Your task to perform on an android device: open wifi settings Image 0: 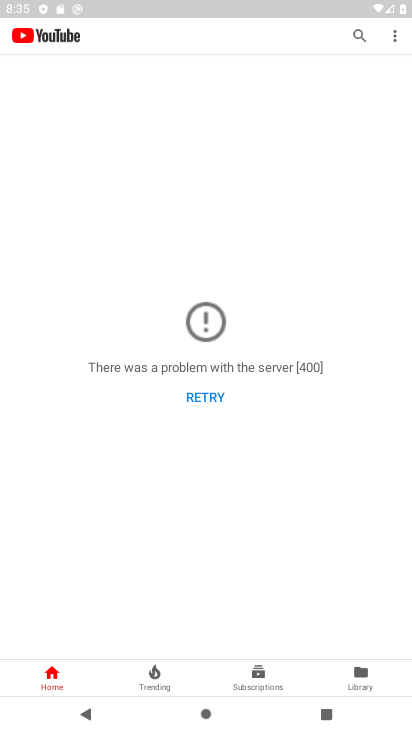
Step 0: press back button
Your task to perform on an android device: open wifi settings Image 1: 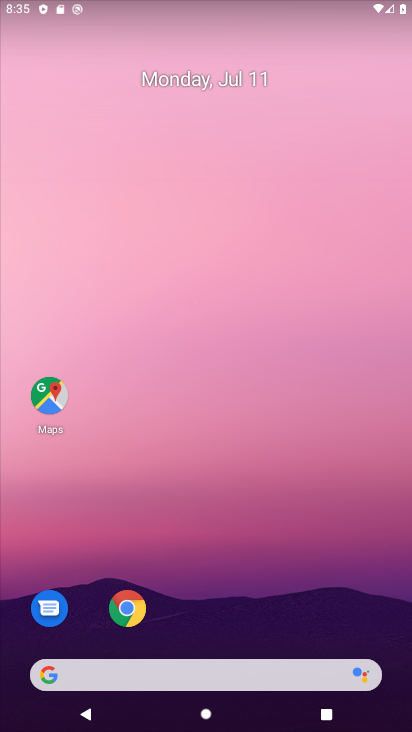
Step 1: click (185, 278)
Your task to perform on an android device: open wifi settings Image 2: 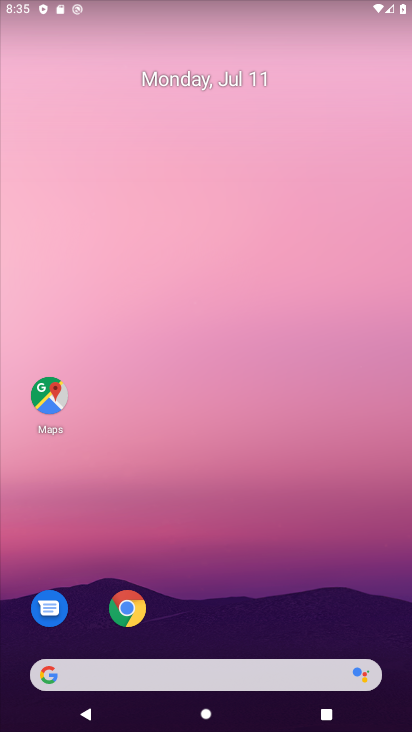
Step 2: drag from (178, 300) to (178, 54)
Your task to perform on an android device: open wifi settings Image 3: 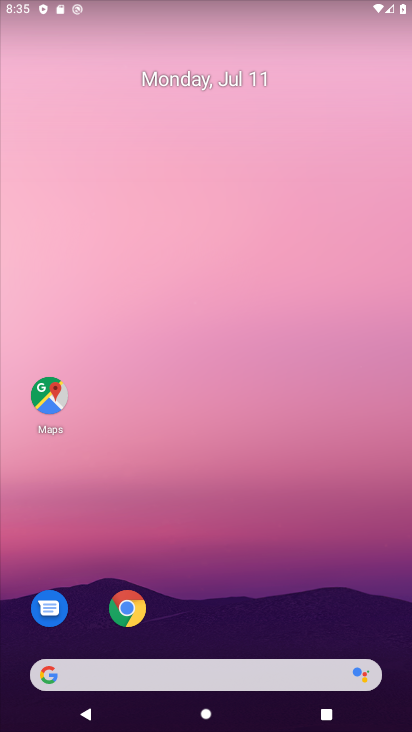
Step 3: drag from (185, 616) to (193, 32)
Your task to perform on an android device: open wifi settings Image 4: 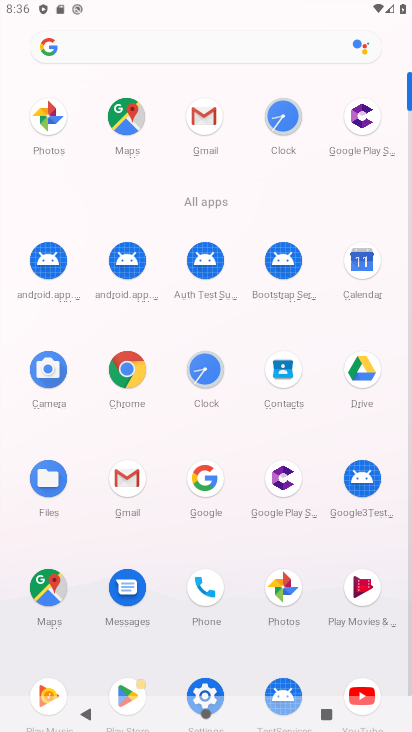
Step 4: click (198, 685)
Your task to perform on an android device: open wifi settings Image 5: 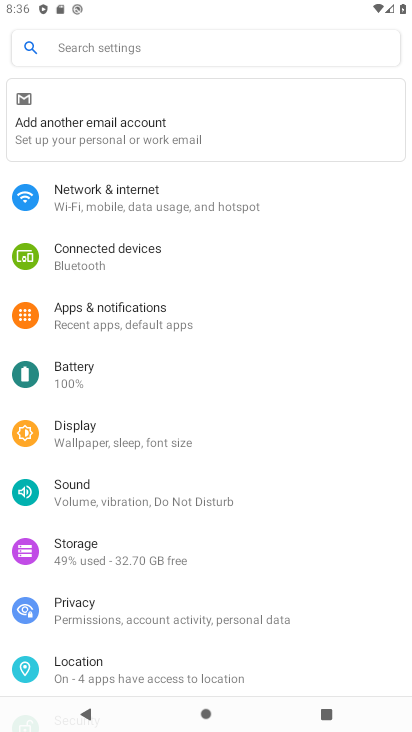
Step 5: click (92, 188)
Your task to perform on an android device: open wifi settings Image 6: 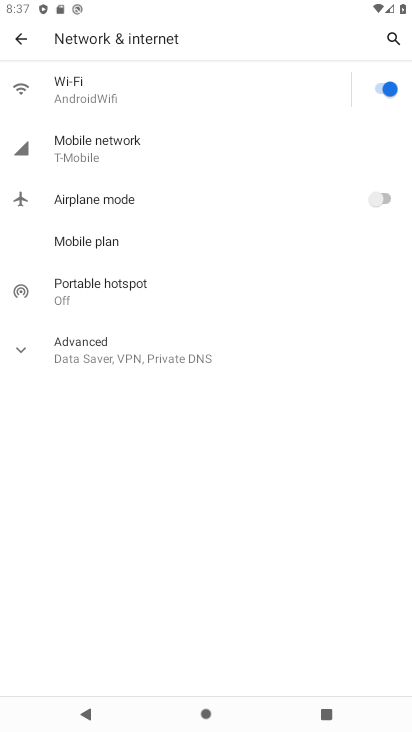
Step 6: click (134, 96)
Your task to perform on an android device: open wifi settings Image 7: 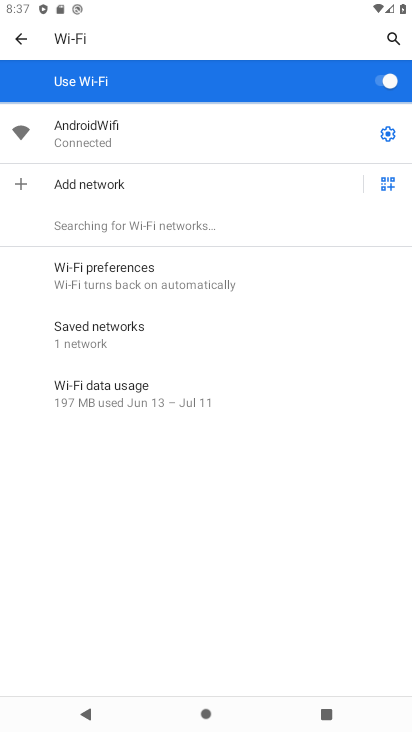
Step 7: task complete